Your task to perform on an android device: Go to Reddit.com Image 0: 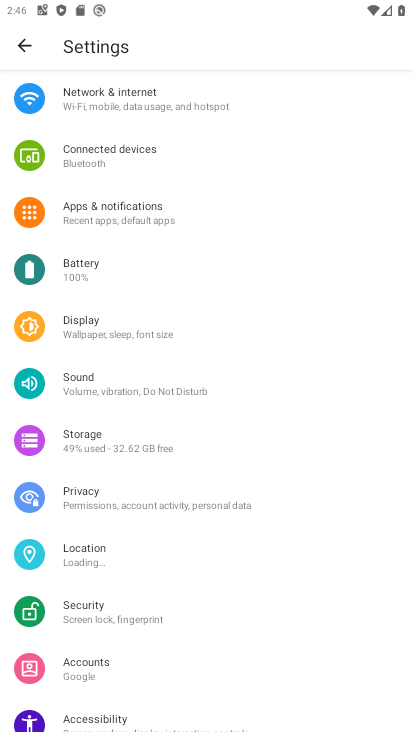
Step 0: press home button
Your task to perform on an android device: Go to Reddit.com Image 1: 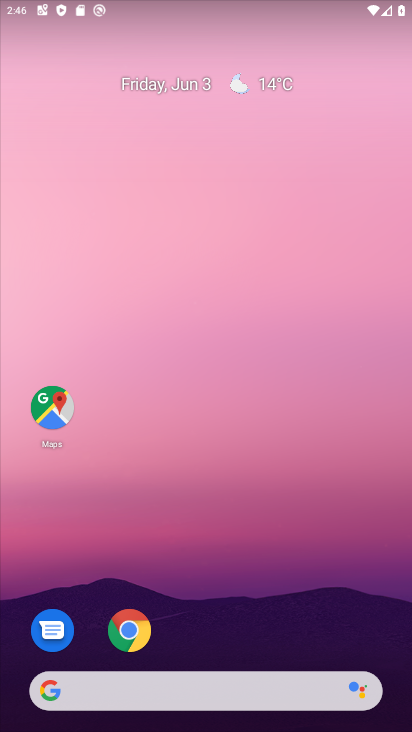
Step 1: click (138, 640)
Your task to perform on an android device: Go to Reddit.com Image 2: 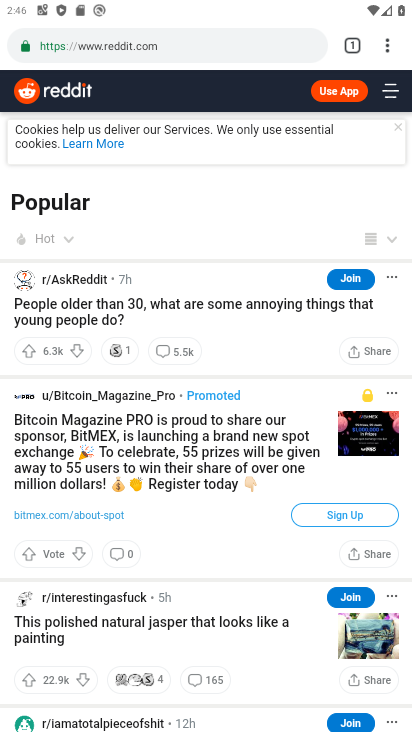
Step 2: task complete